Your task to perform on an android device: Clear the shopping cart on newegg.com. Image 0: 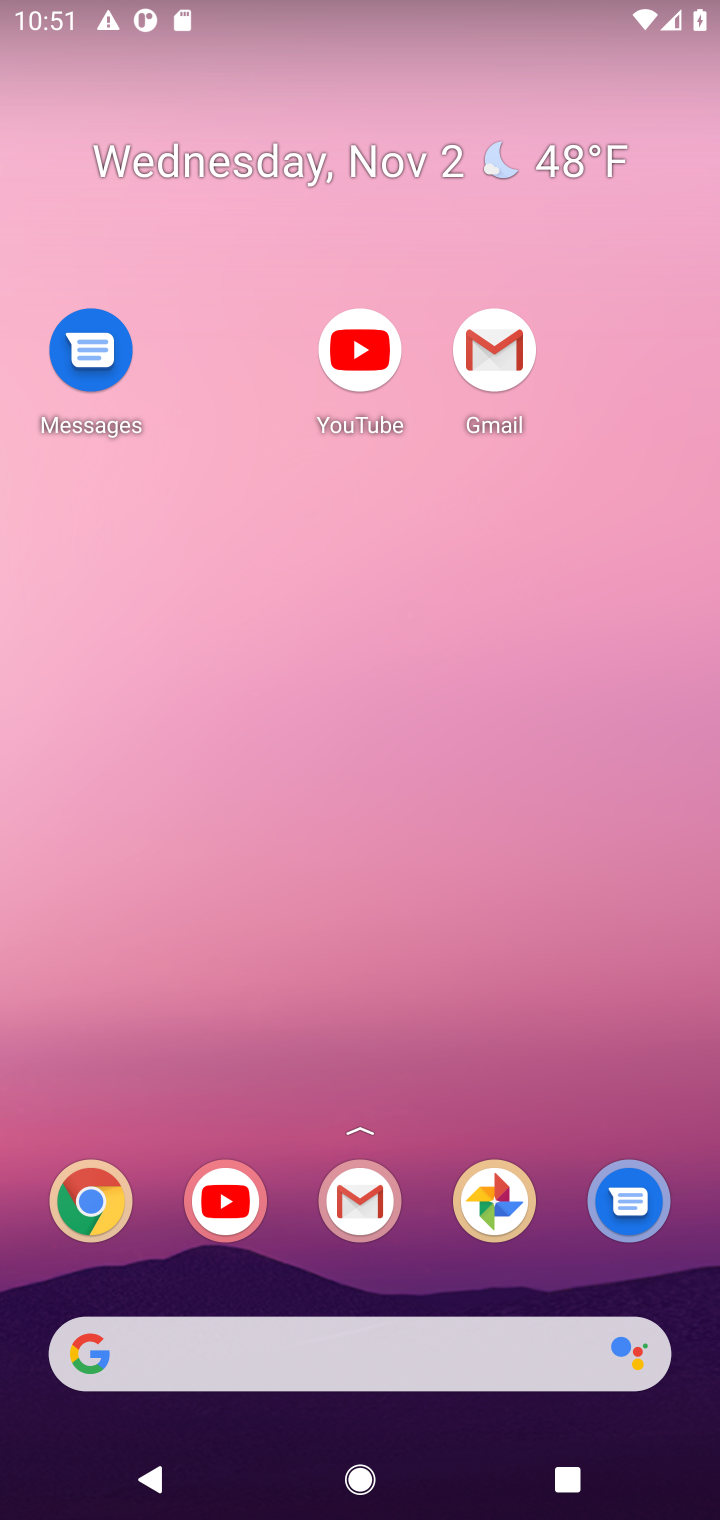
Step 0: drag from (422, 1292) to (460, 469)
Your task to perform on an android device: Clear the shopping cart on newegg.com. Image 1: 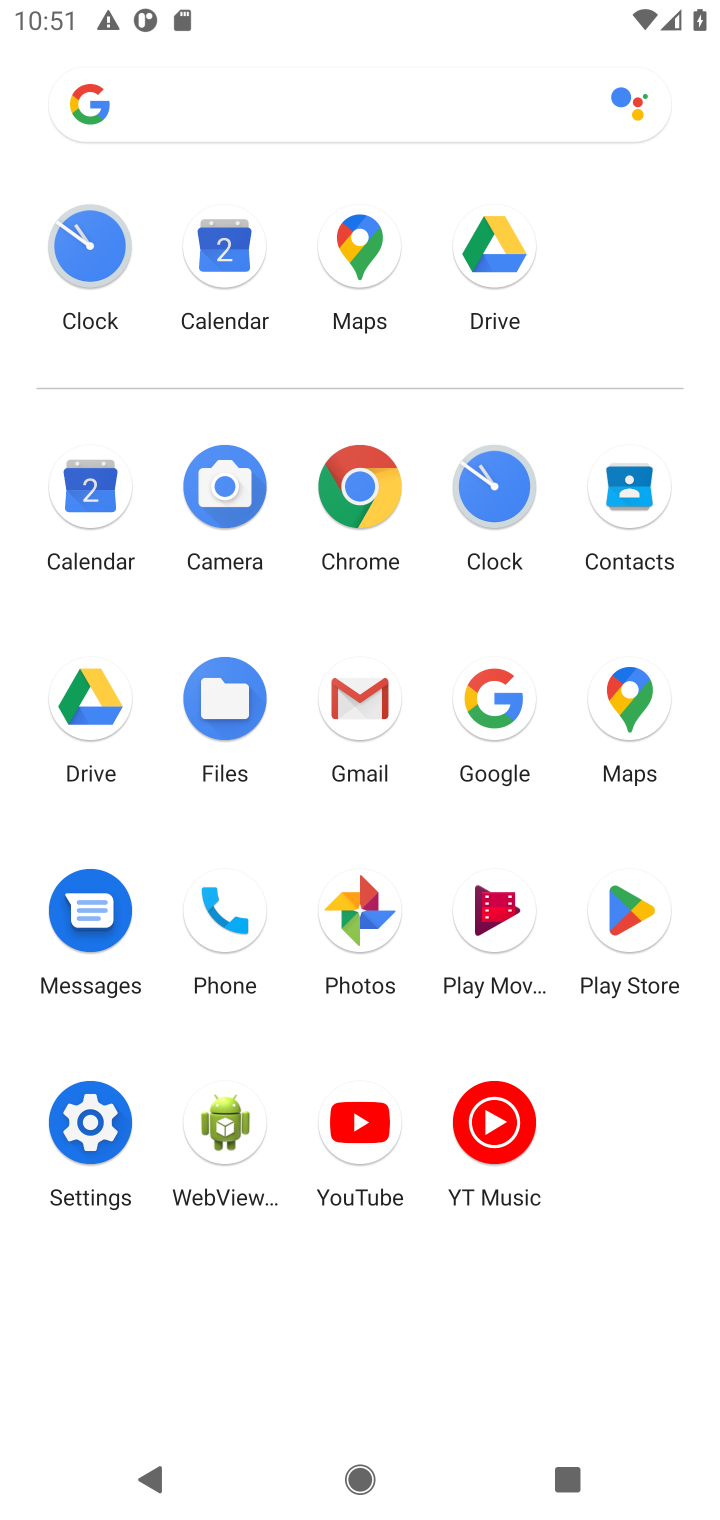
Step 1: click (361, 486)
Your task to perform on an android device: Clear the shopping cart on newegg.com. Image 2: 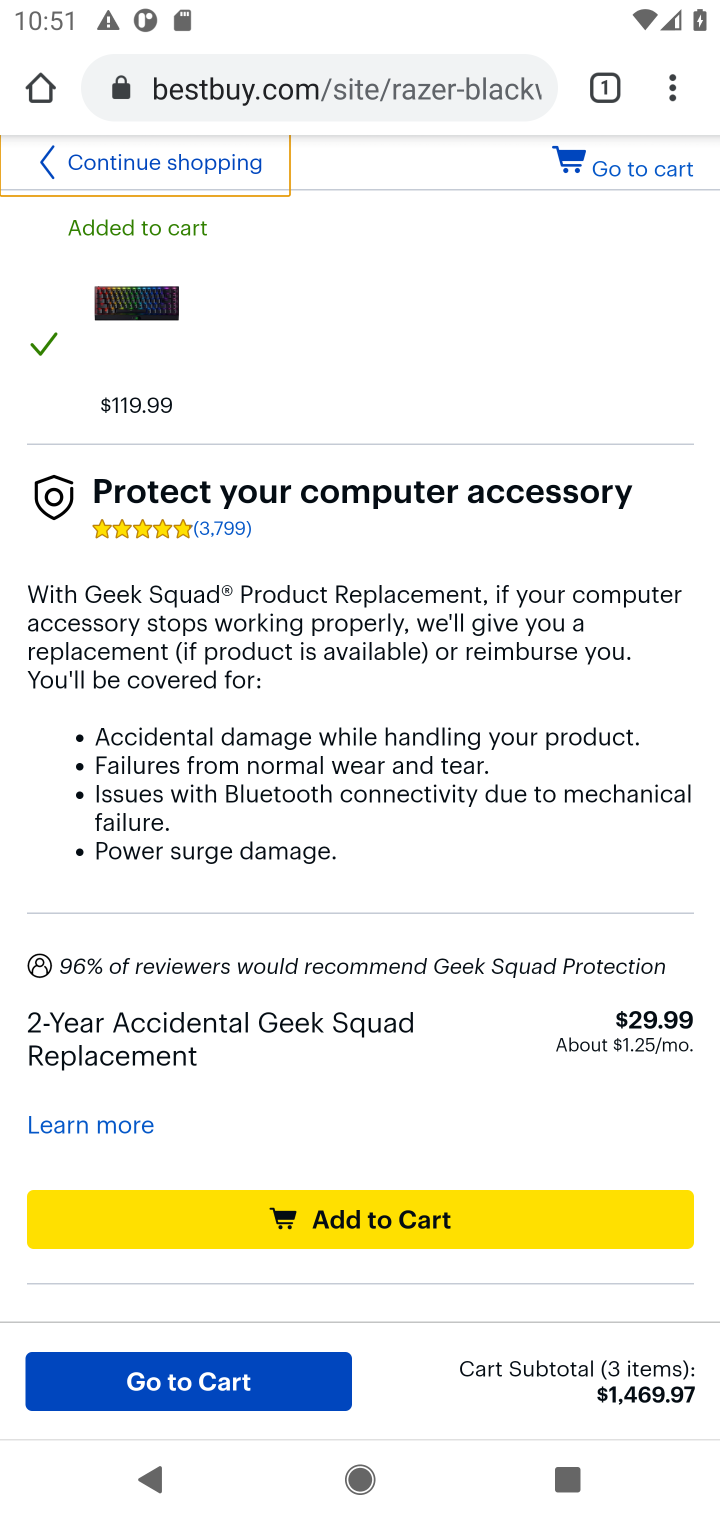
Step 2: click (436, 100)
Your task to perform on an android device: Clear the shopping cart on newegg.com. Image 3: 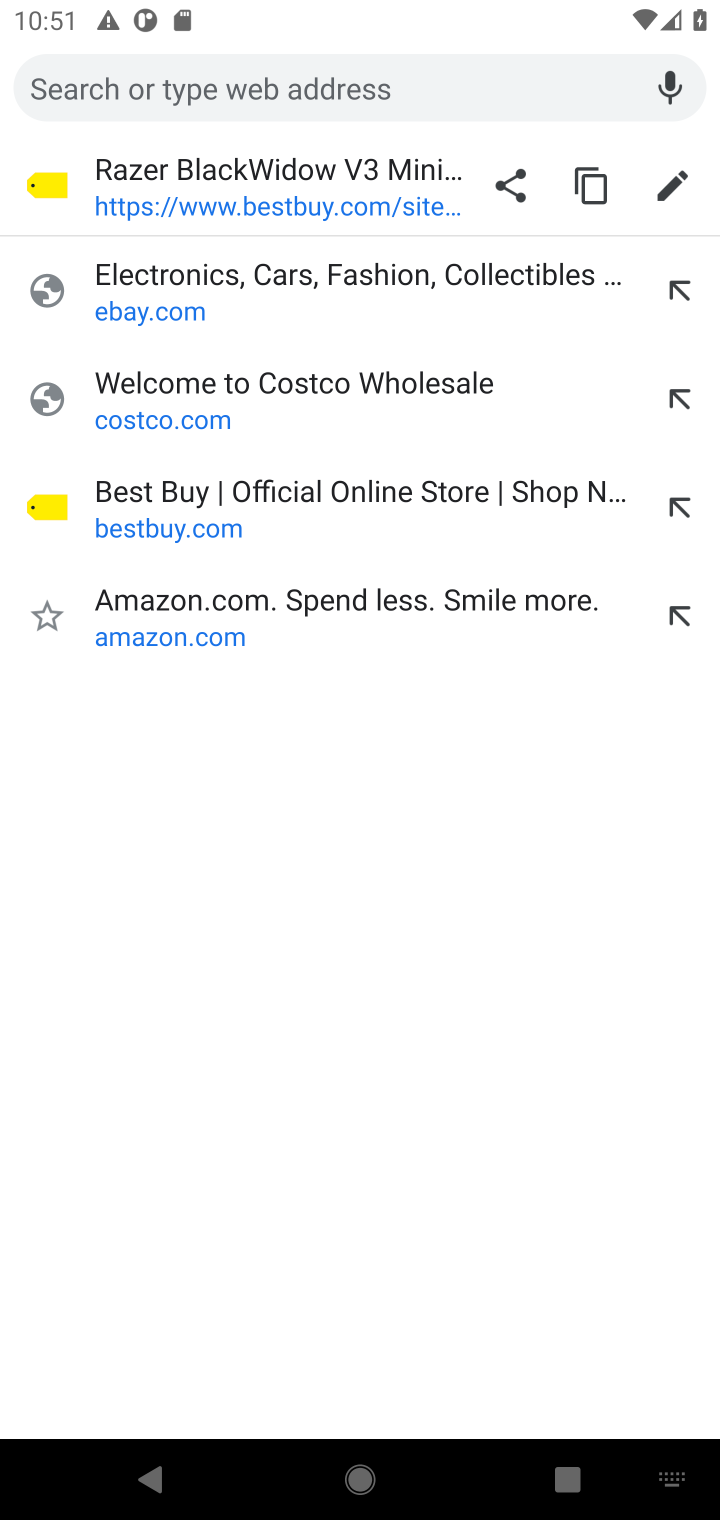
Step 3: type "newegg.com"
Your task to perform on an android device: Clear the shopping cart on newegg.com. Image 4: 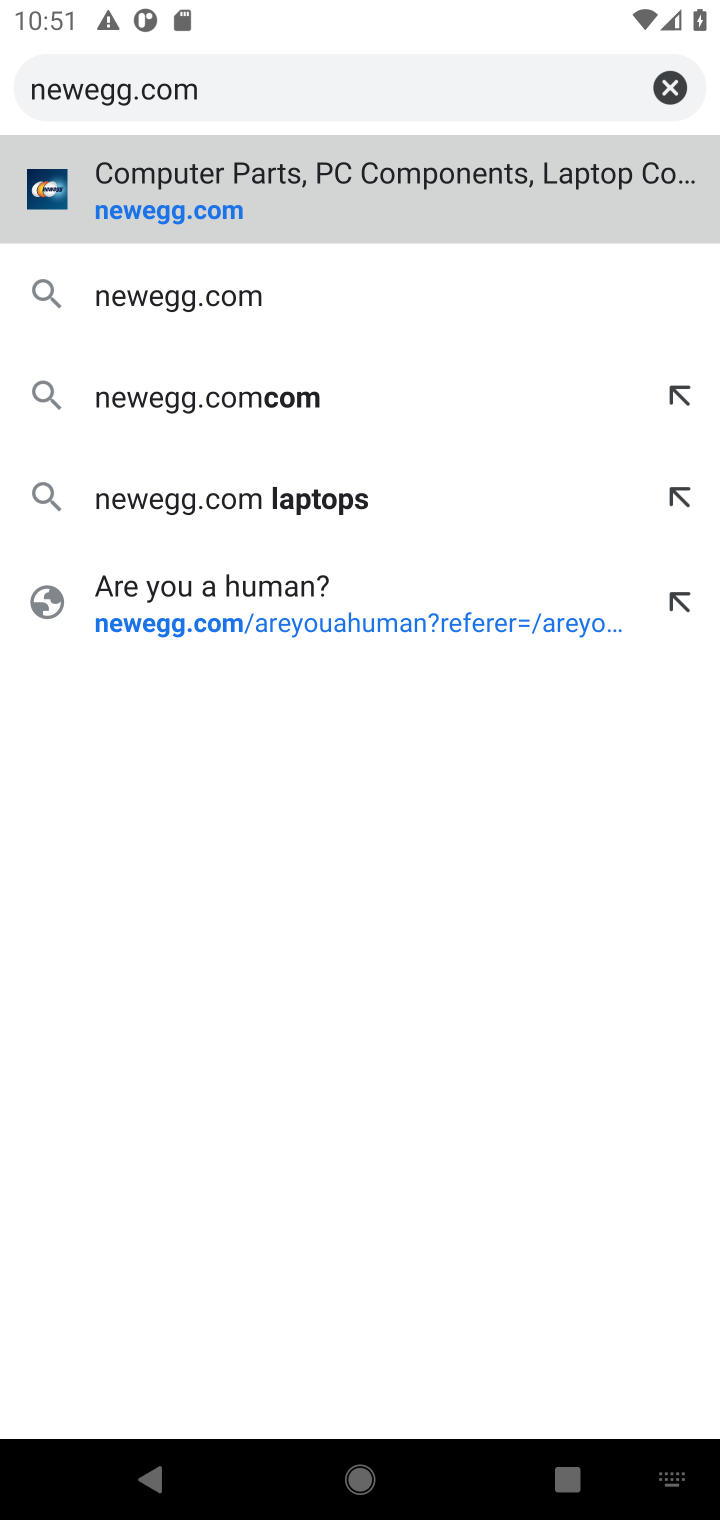
Step 4: press enter
Your task to perform on an android device: Clear the shopping cart on newegg.com. Image 5: 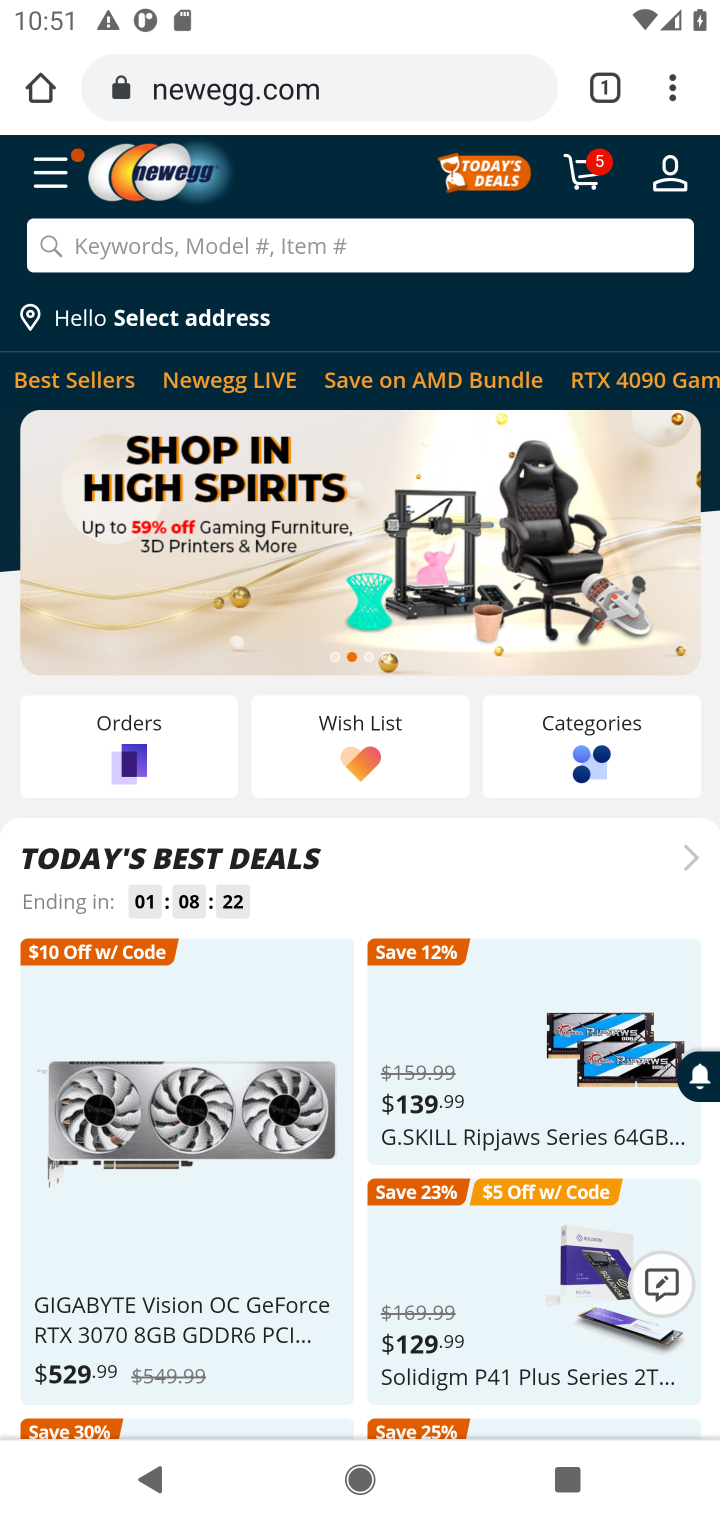
Step 5: click (604, 177)
Your task to perform on an android device: Clear the shopping cart on newegg.com. Image 6: 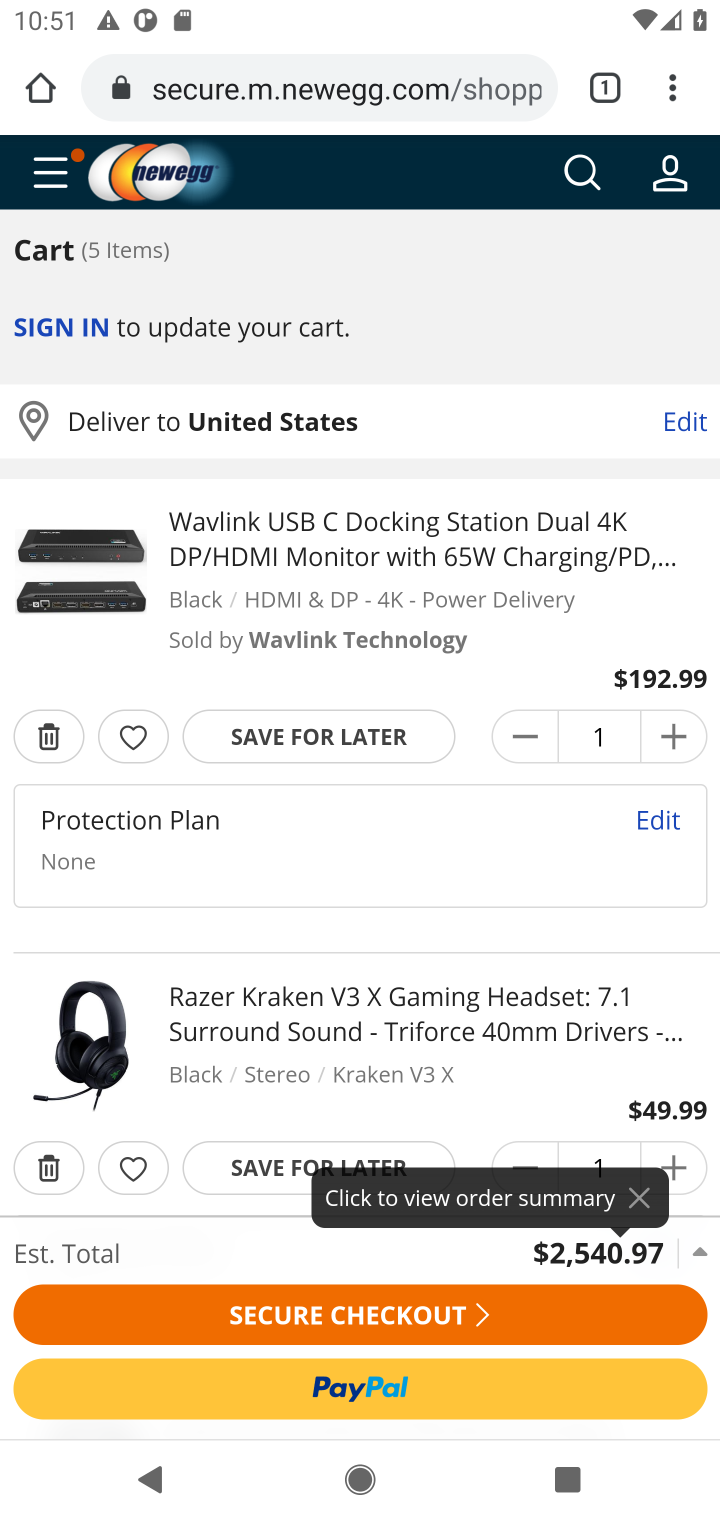
Step 6: click (49, 738)
Your task to perform on an android device: Clear the shopping cart on newegg.com. Image 7: 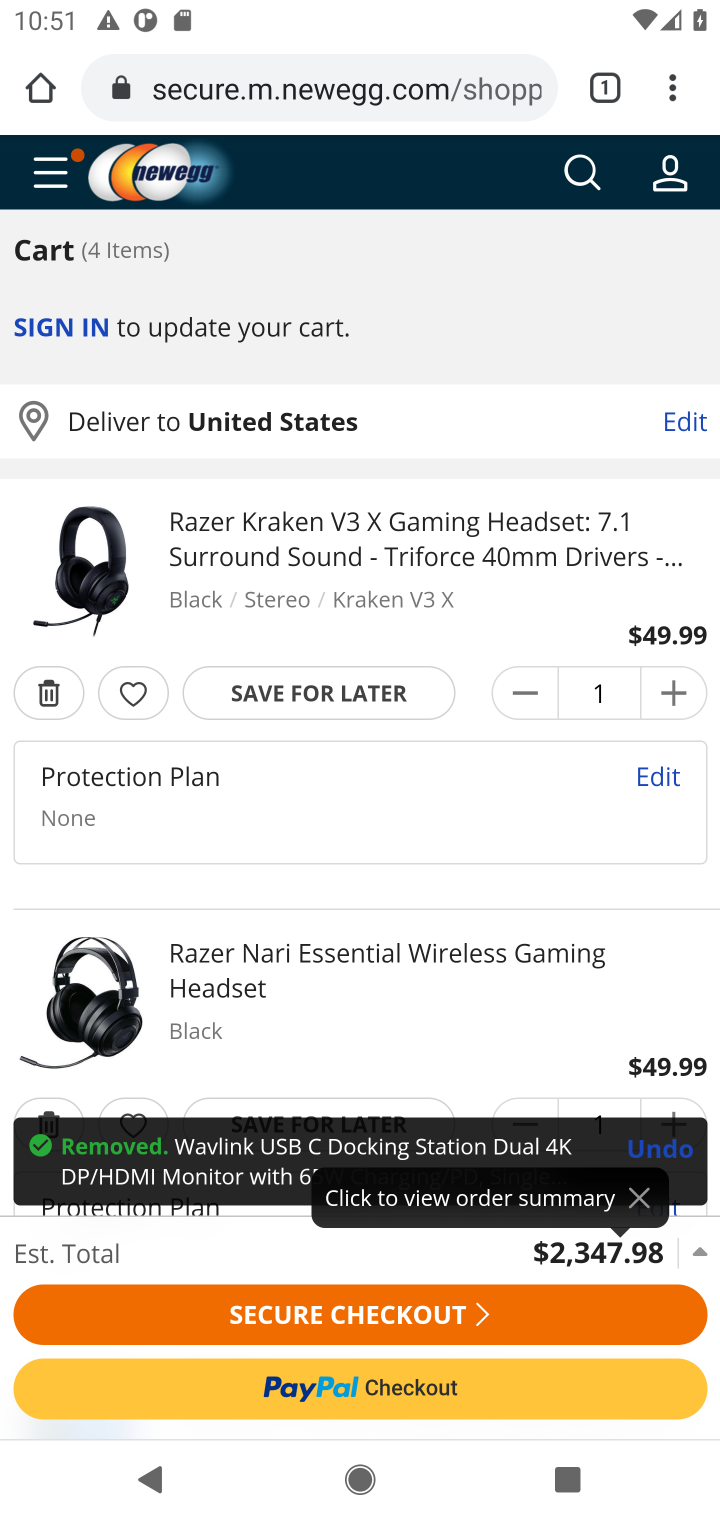
Step 7: click (45, 696)
Your task to perform on an android device: Clear the shopping cart on newegg.com. Image 8: 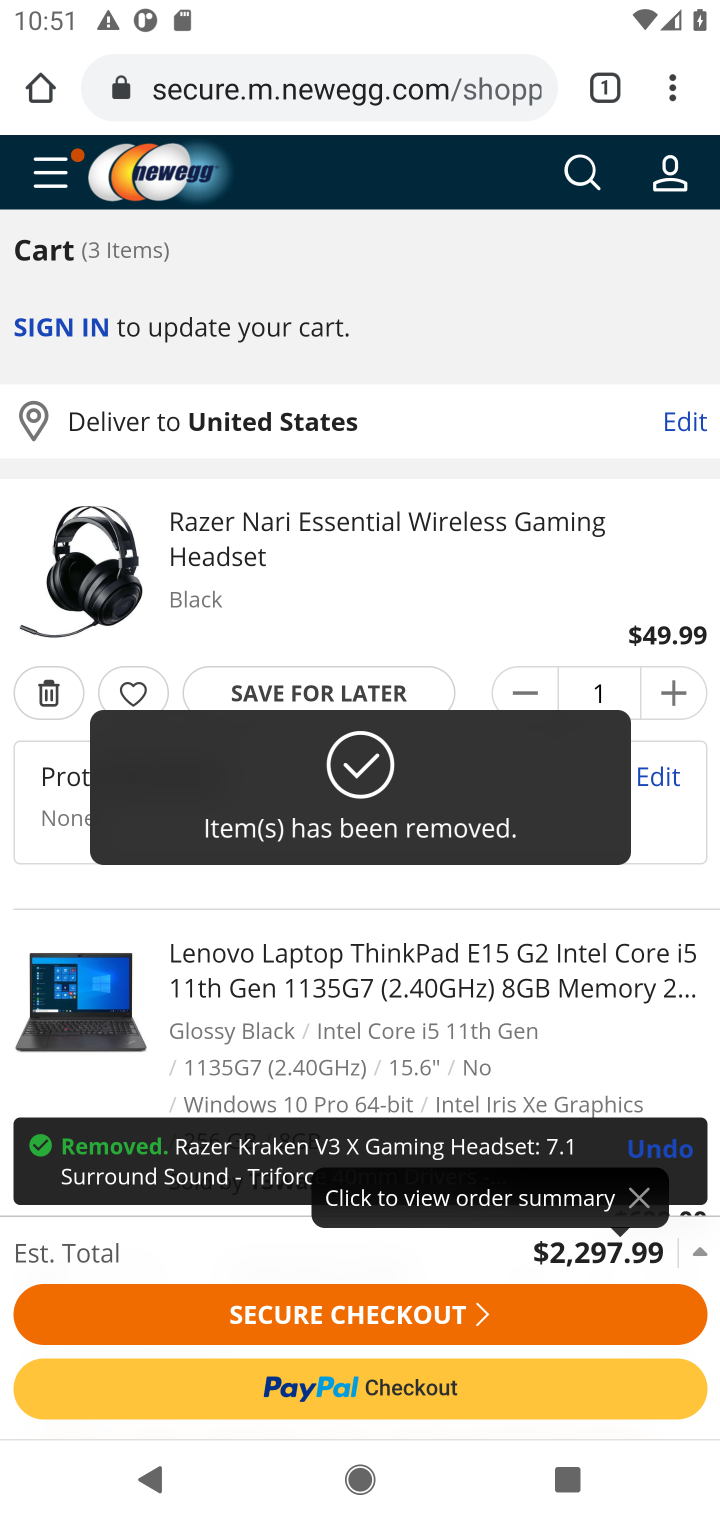
Step 8: click (45, 696)
Your task to perform on an android device: Clear the shopping cart on newegg.com. Image 9: 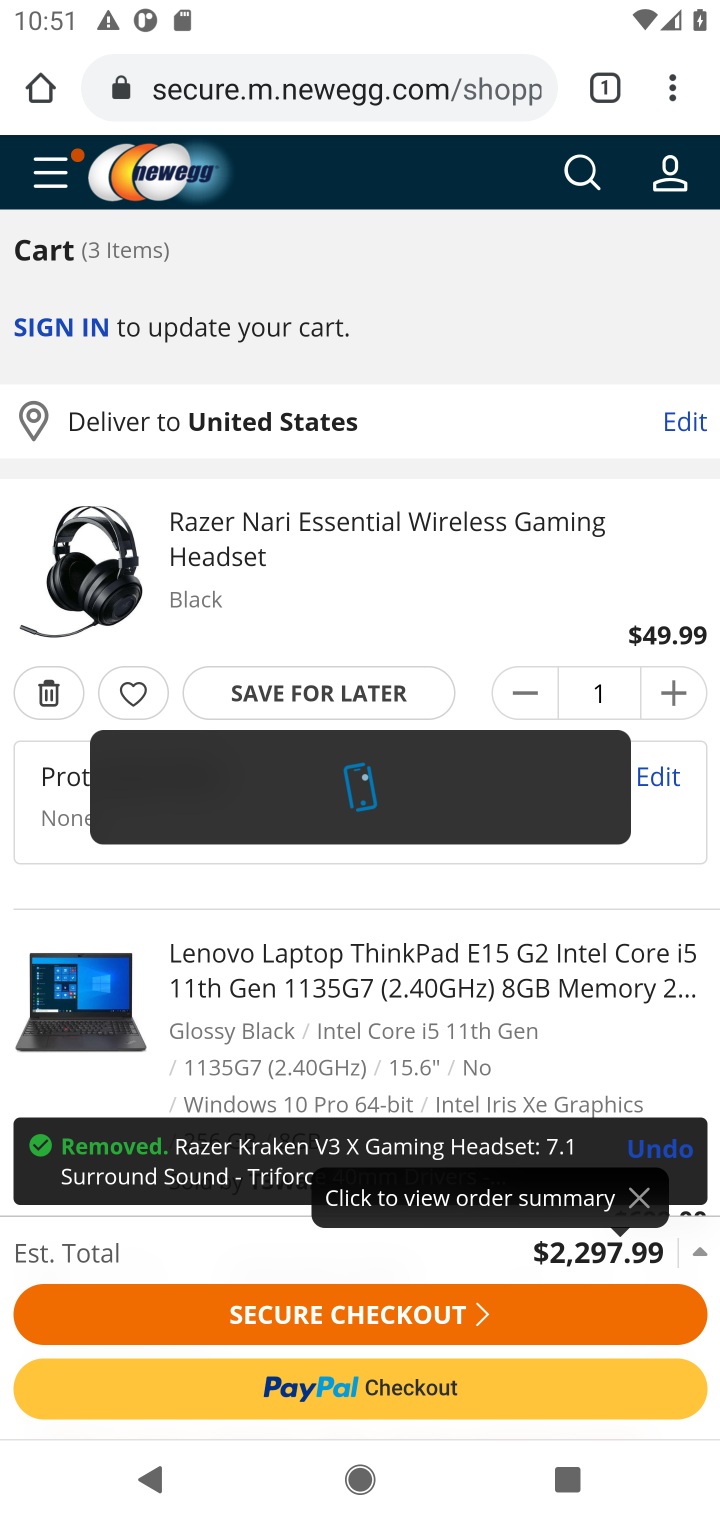
Step 9: click (45, 696)
Your task to perform on an android device: Clear the shopping cart on newegg.com. Image 10: 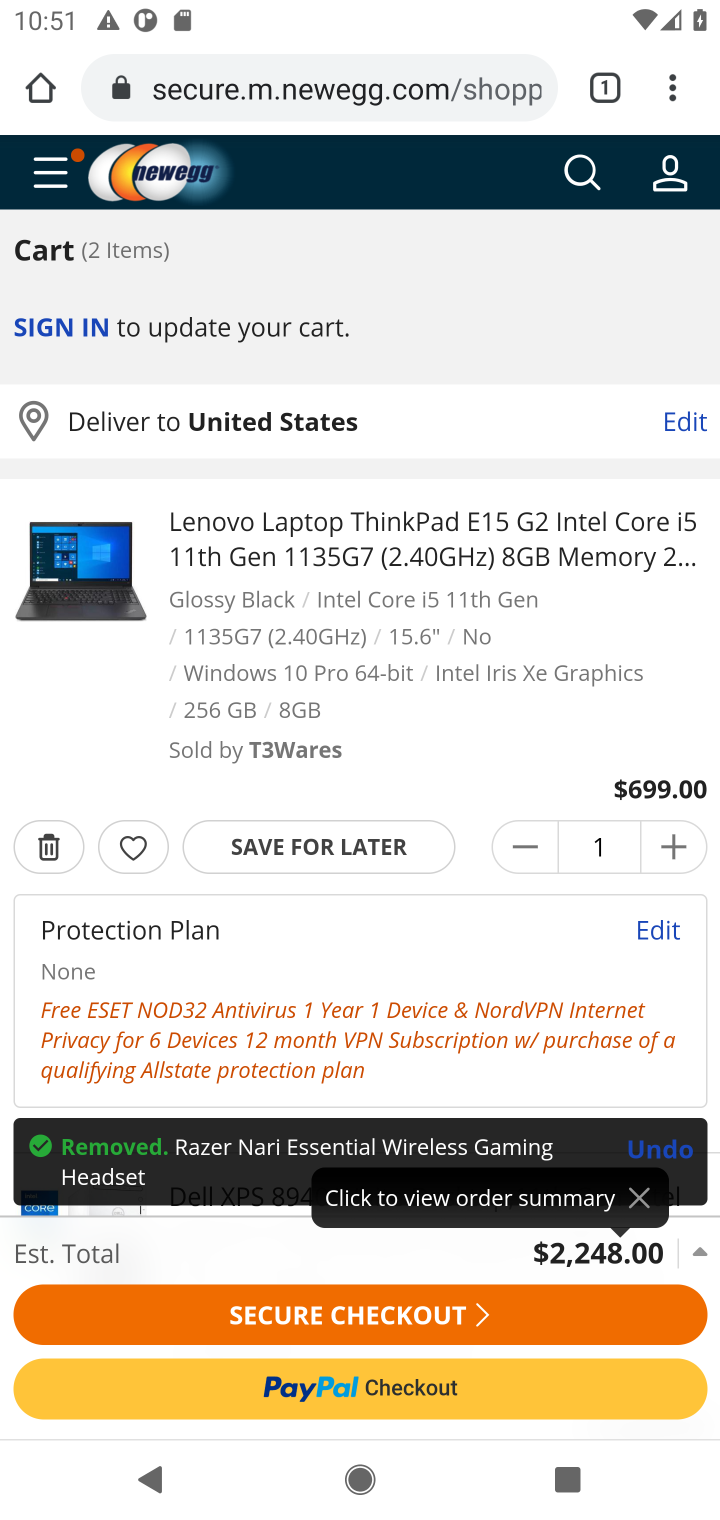
Step 10: click (48, 847)
Your task to perform on an android device: Clear the shopping cart on newegg.com. Image 11: 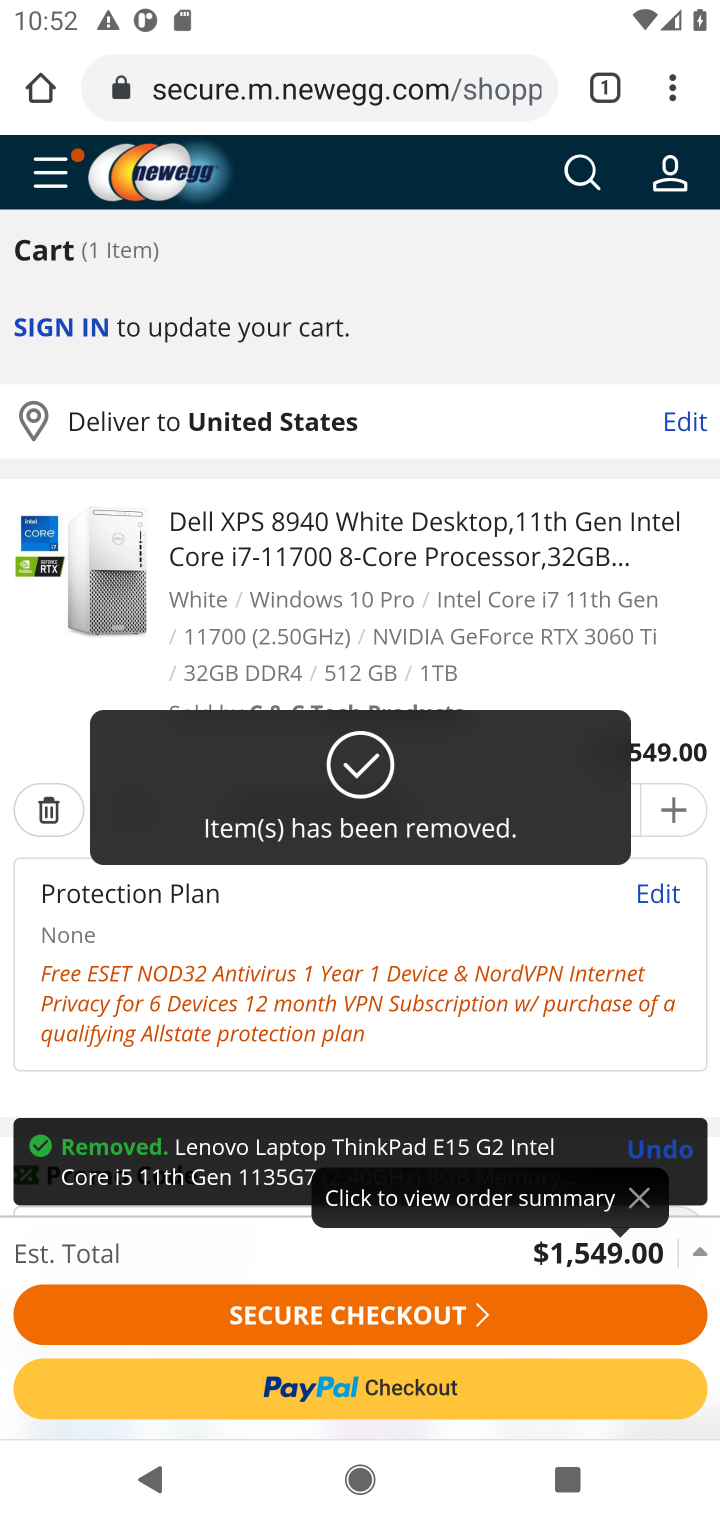
Step 11: click (52, 818)
Your task to perform on an android device: Clear the shopping cart on newegg.com. Image 12: 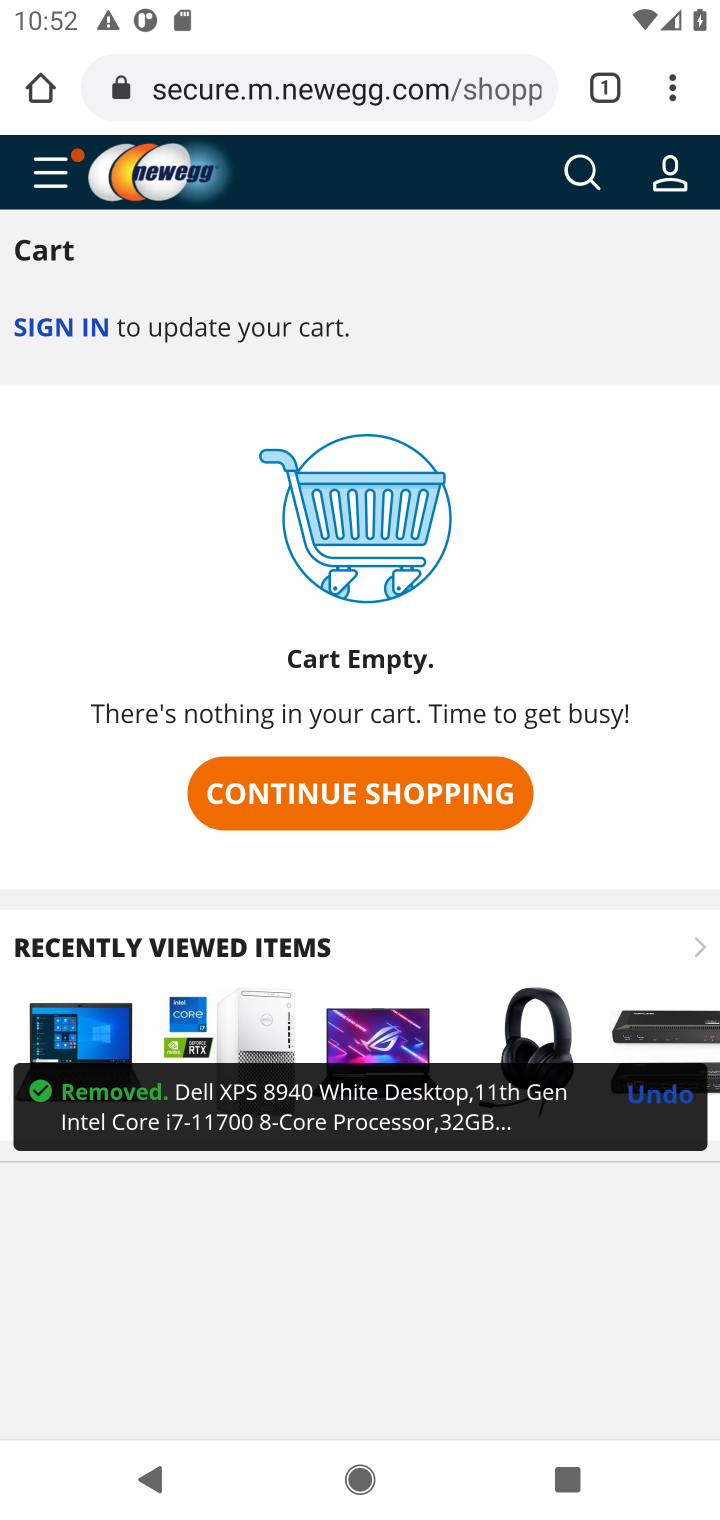
Step 12: task complete